Your task to perform on an android device: turn on showing notifications on the lock screen Image 0: 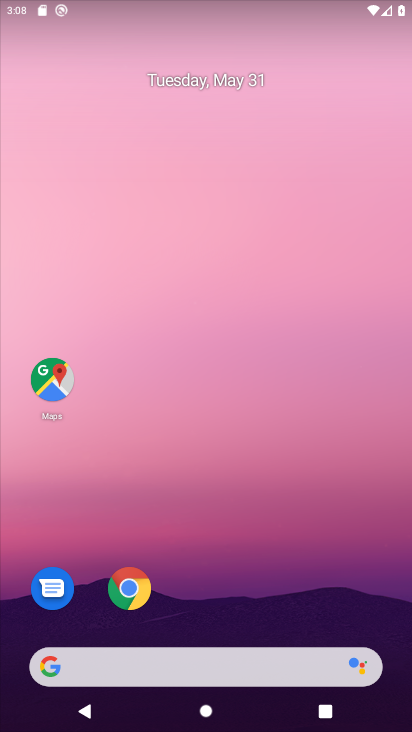
Step 0: drag from (299, 608) to (266, 96)
Your task to perform on an android device: turn on showing notifications on the lock screen Image 1: 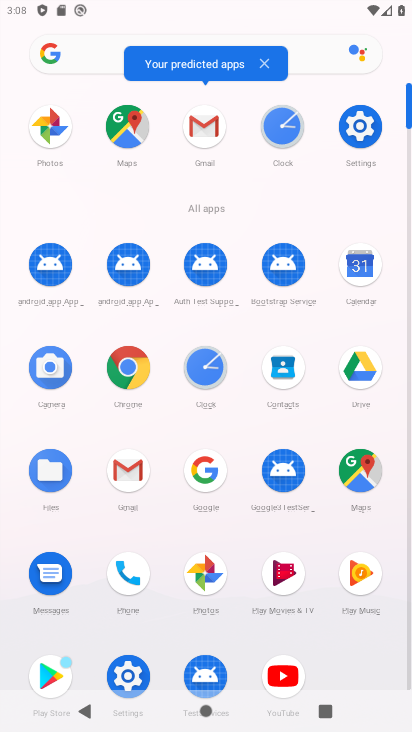
Step 1: click (364, 135)
Your task to perform on an android device: turn on showing notifications on the lock screen Image 2: 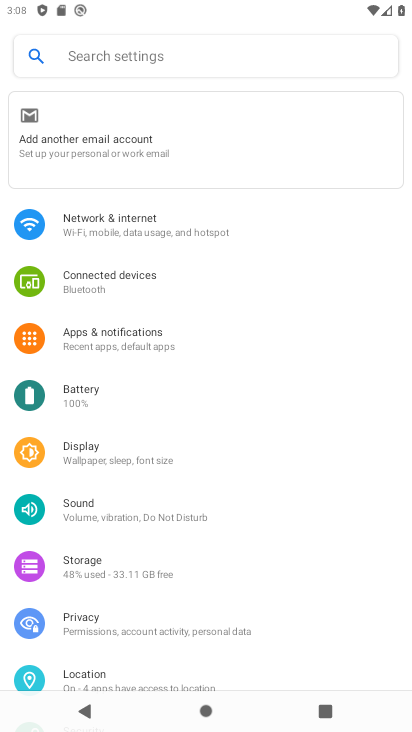
Step 2: click (151, 353)
Your task to perform on an android device: turn on showing notifications on the lock screen Image 3: 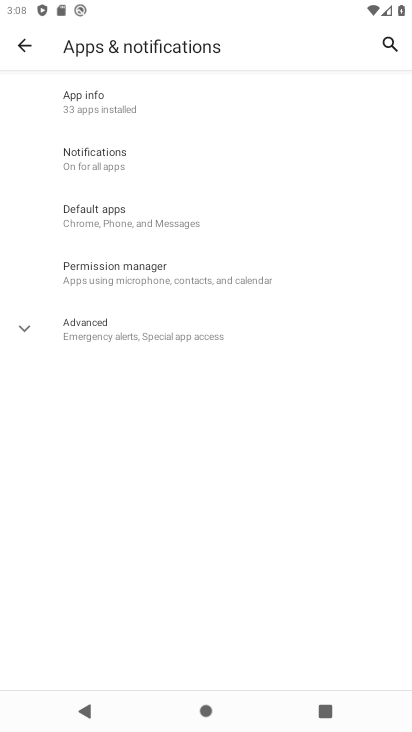
Step 3: click (142, 158)
Your task to perform on an android device: turn on showing notifications on the lock screen Image 4: 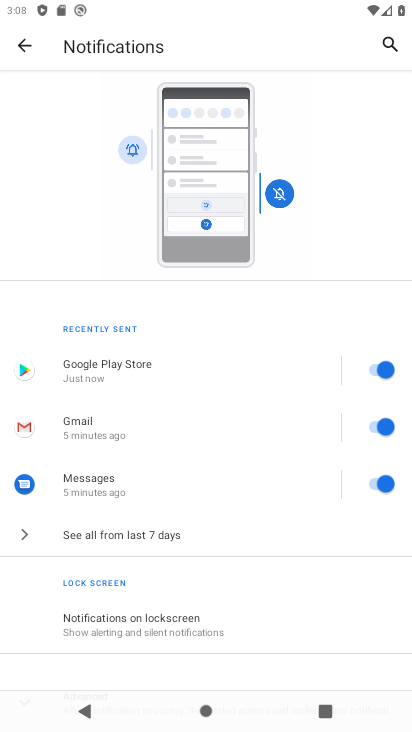
Step 4: drag from (174, 581) to (192, 193)
Your task to perform on an android device: turn on showing notifications on the lock screen Image 5: 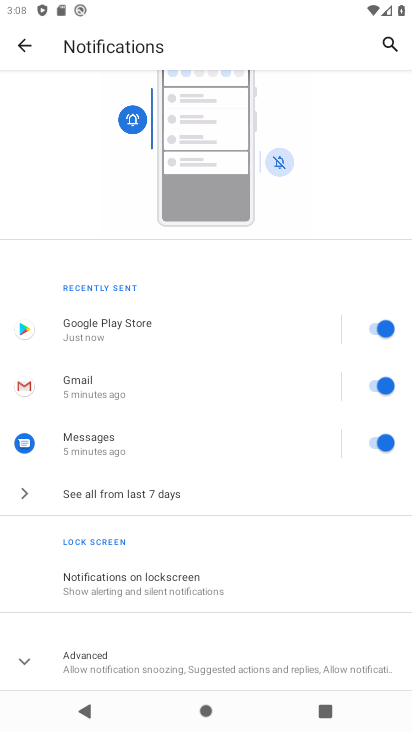
Step 5: click (207, 579)
Your task to perform on an android device: turn on showing notifications on the lock screen Image 6: 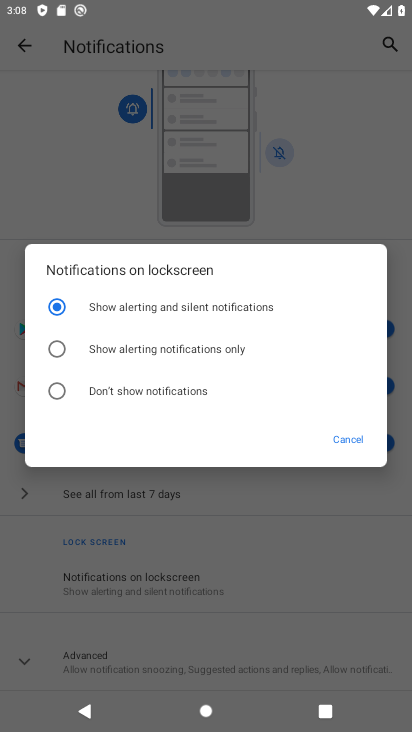
Step 6: task complete